Your task to perform on an android device: turn off improve location accuracy Image 0: 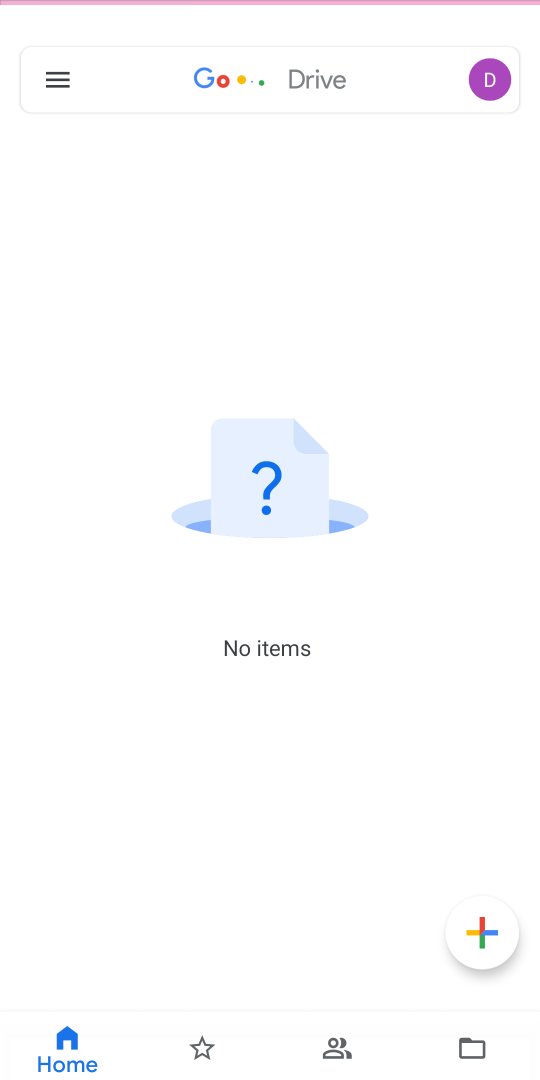
Step 0: press home button
Your task to perform on an android device: turn off improve location accuracy Image 1: 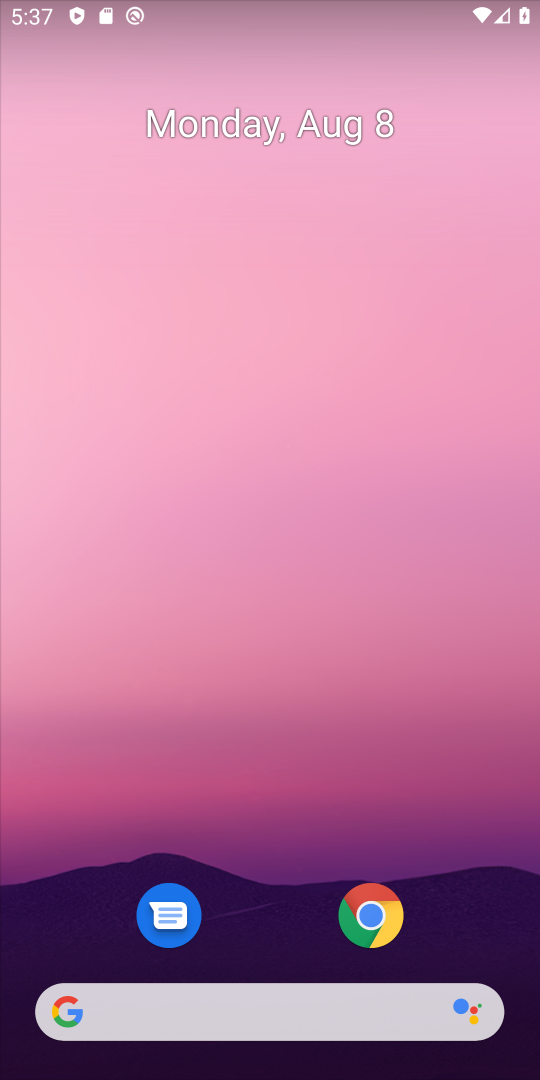
Step 1: drag from (286, 840) to (285, 86)
Your task to perform on an android device: turn off improve location accuracy Image 2: 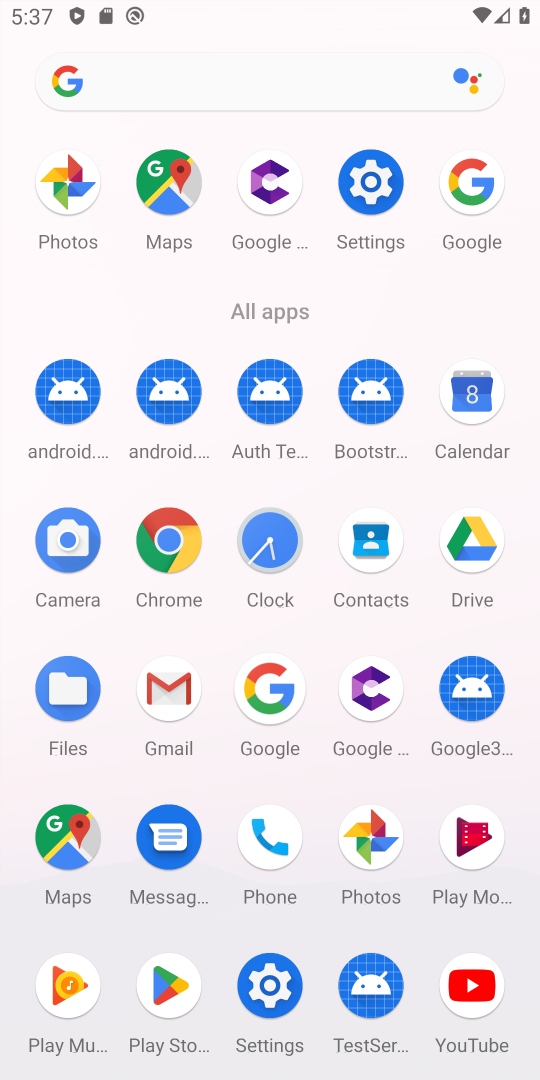
Step 2: click (373, 180)
Your task to perform on an android device: turn off improve location accuracy Image 3: 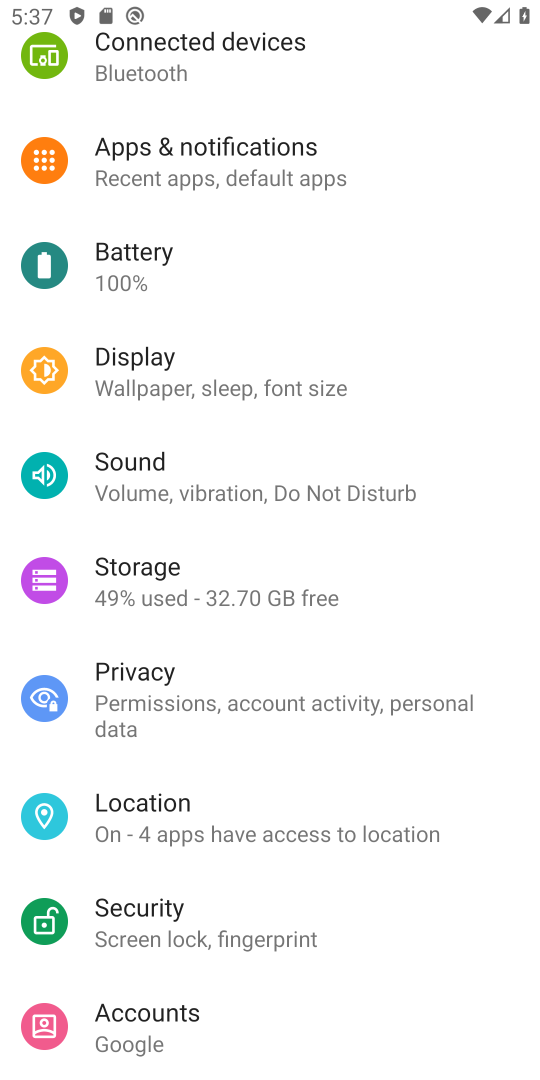
Step 3: click (158, 793)
Your task to perform on an android device: turn off improve location accuracy Image 4: 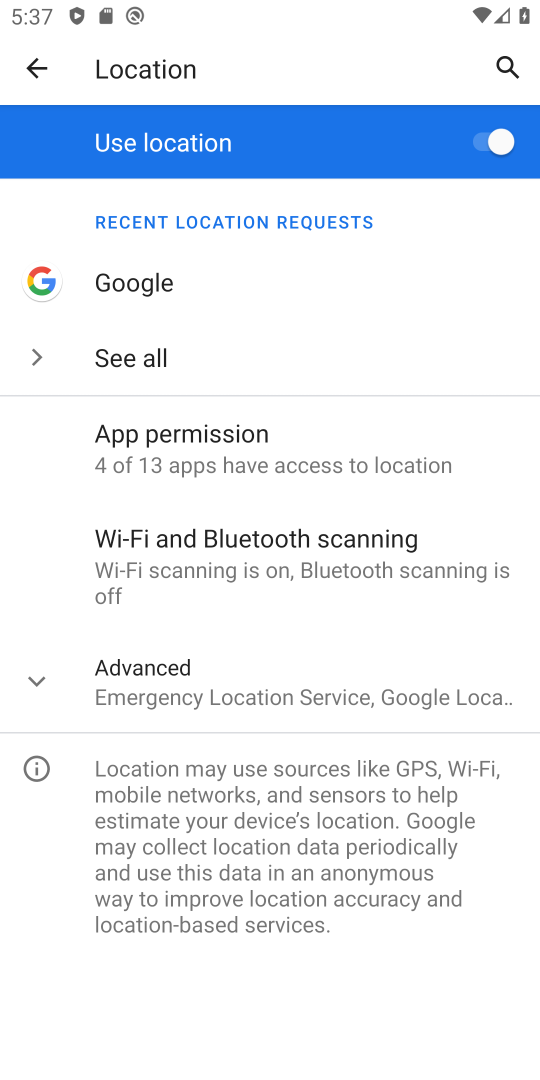
Step 4: click (60, 683)
Your task to perform on an android device: turn off improve location accuracy Image 5: 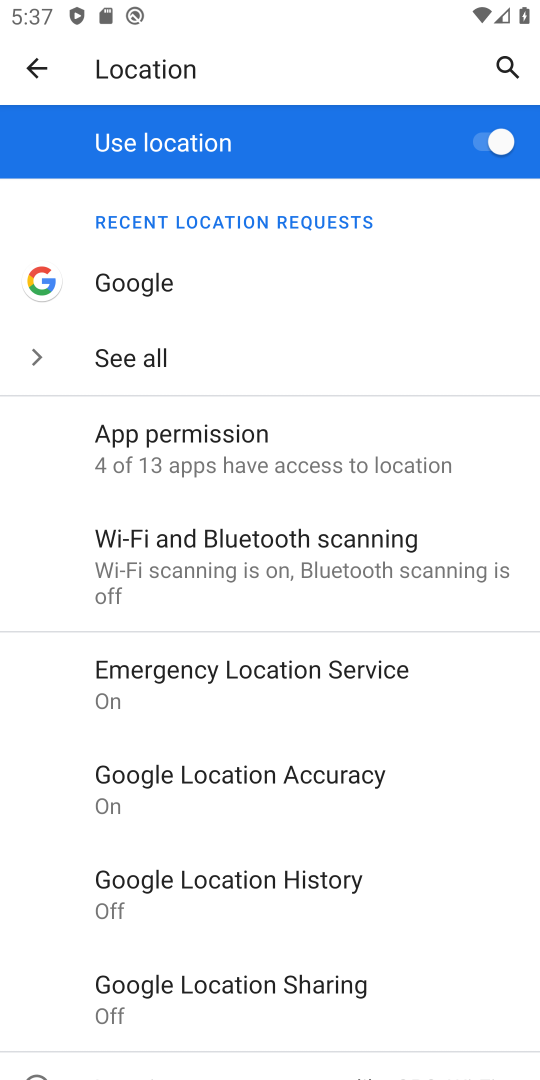
Step 5: click (258, 767)
Your task to perform on an android device: turn off improve location accuracy Image 6: 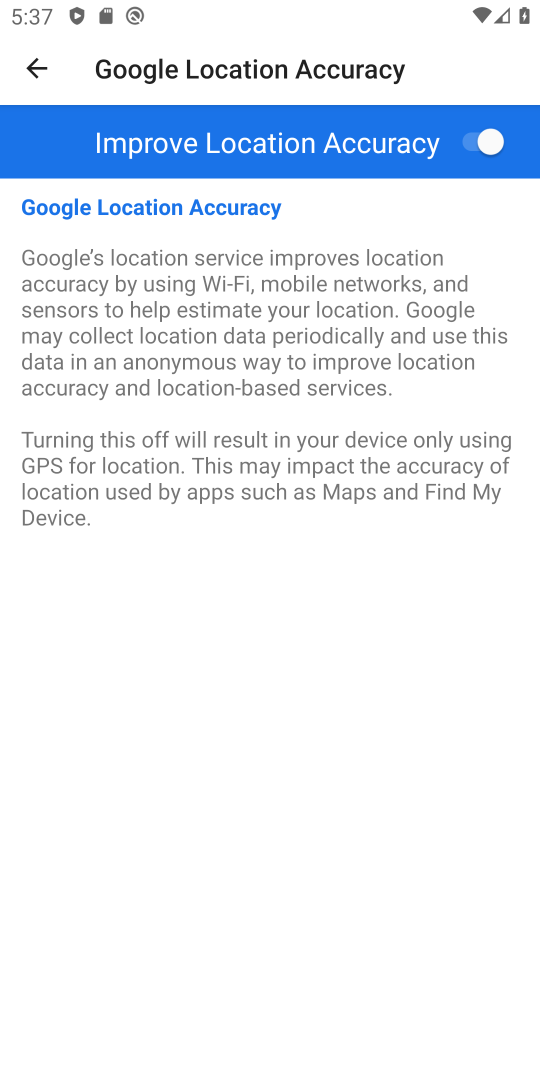
Step 6: click (480, 150)
Your task to perform on an android device: turn off improve location accuracy Image 7: 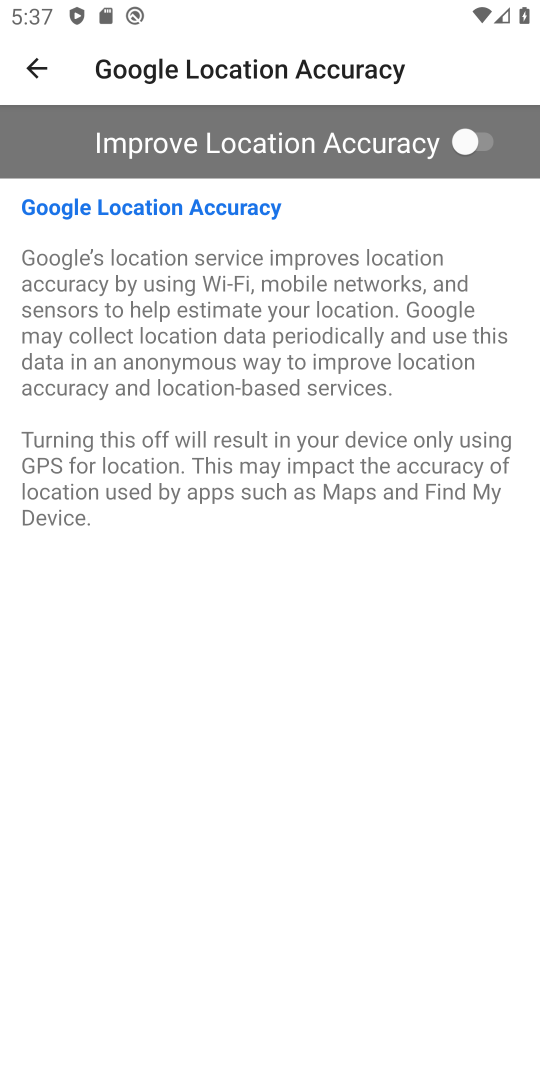
Step 7: task complete